Your task to perform on an android device: check google app version Image 0: 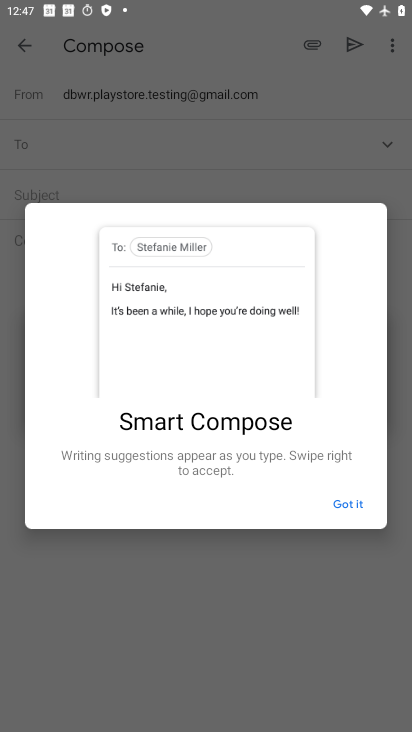
Step 0: press home button
Your task to perform on an android device: check google app version Image 1: 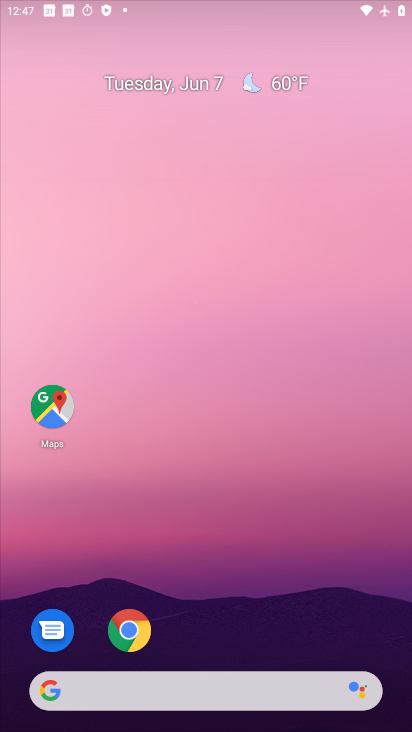
Step 1: drag from (393, 665) to (245, 41)
Your task to perform on an android device: check google app version Image 2: 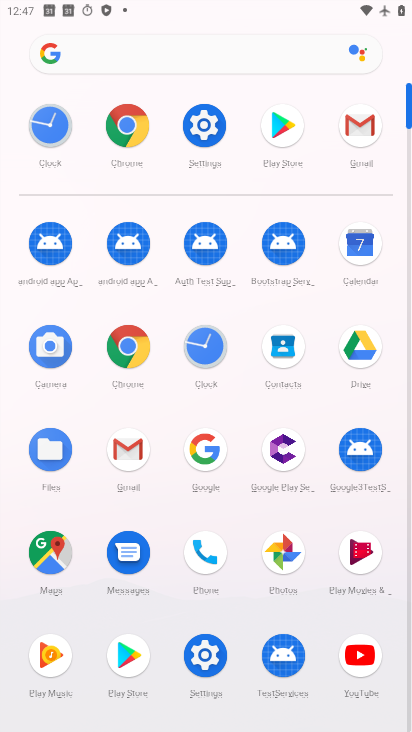
Step 2: click (198, 464)
Your task to perform on an android device: check google app version Image 3: 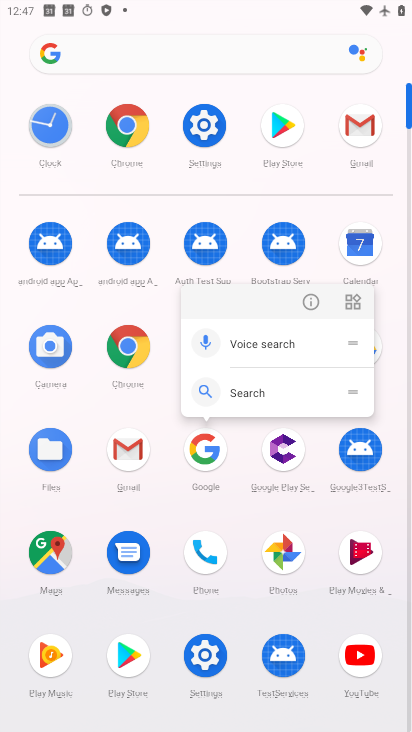
Step 3: click (309, 301)
Your task to perform on an android device: check google app version Image 4: 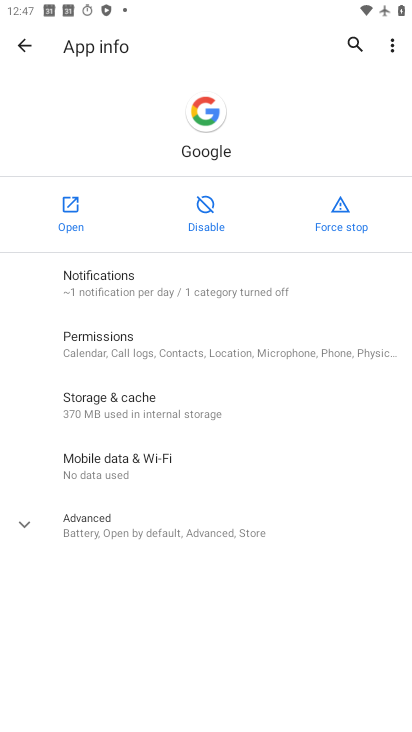
Step 4: click (13, 525)
Your task to perform on an android device: check google app version Image 5: 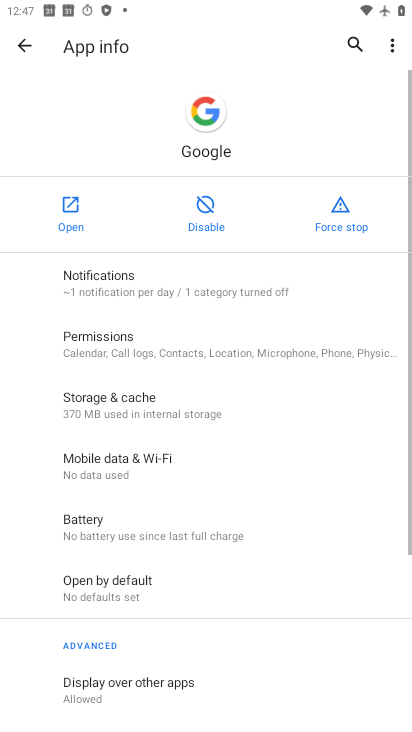
Step 5: task complete